Your task to perform on an android device: toggle translation in the chrome app Image 0: 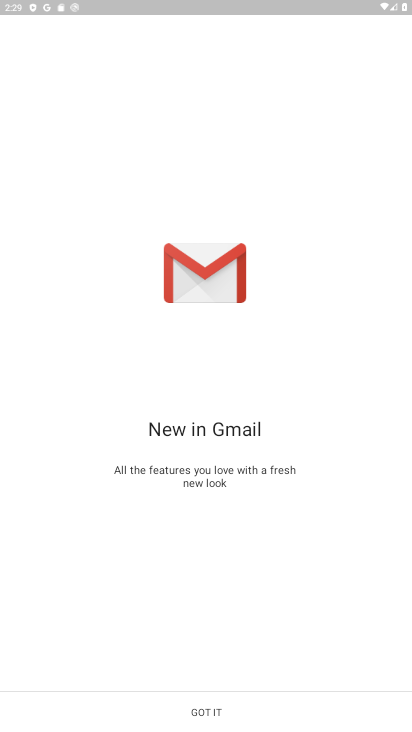
Step 0: press home button
Your task to perform on an android device: toggle translation in the chrome app Image 1: 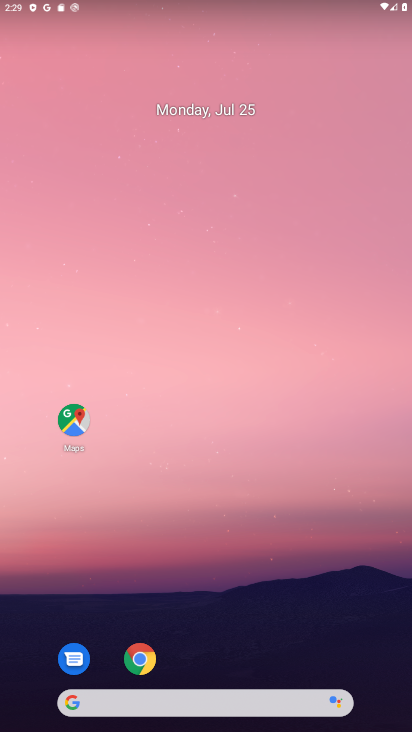
Step 1: drag from (208, 670) to (193, 3)
Your task to perform on an android device: toggle translation in the chrome app Image 2: 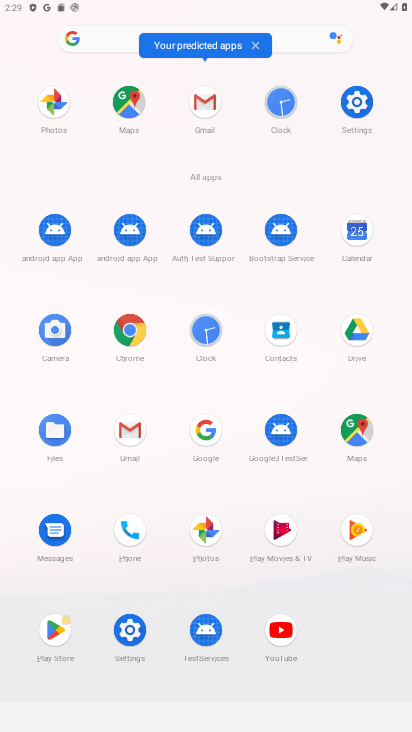
Step 2: click (143, 332)
Your task to perform on an android device: toggle translation in the chrome app Image 3: 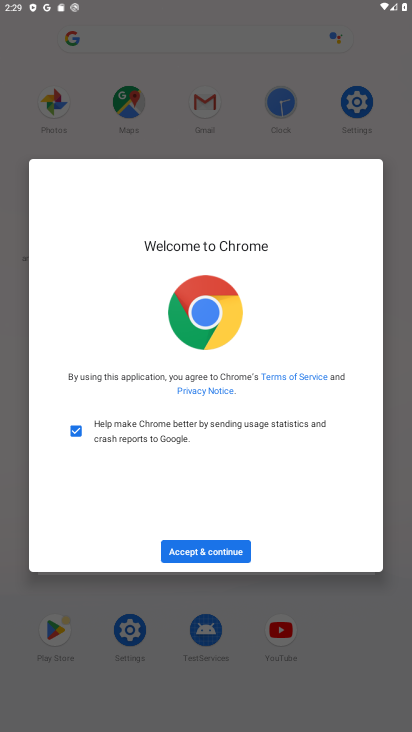
Step 3: click (209, 544)
Your task to perform on an android device: toggle translation in the chrome app Image 4: 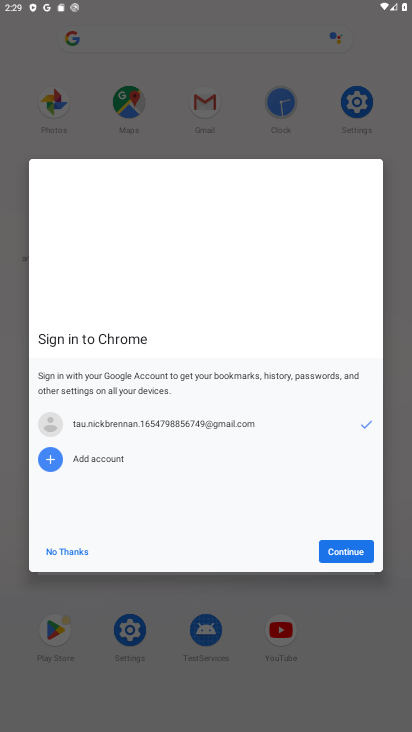
Step 4: click (348, 556)
Your task to perform on an android device: toggle translation in the chrome app Image 5: 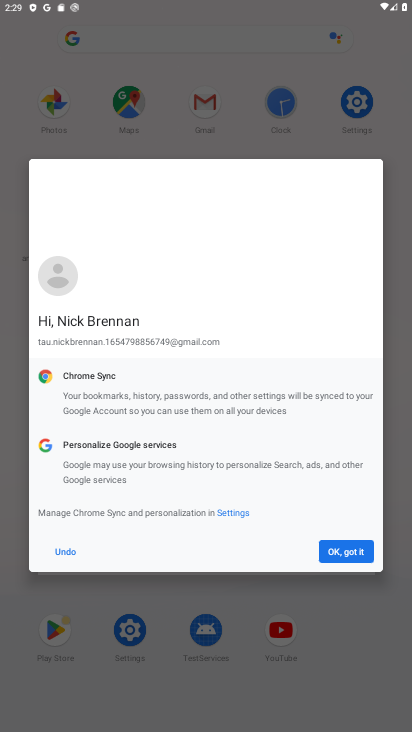
Step 5: click (351, 553)
Your task to perform on an android device: toggle translation in the chrome app Image 6: 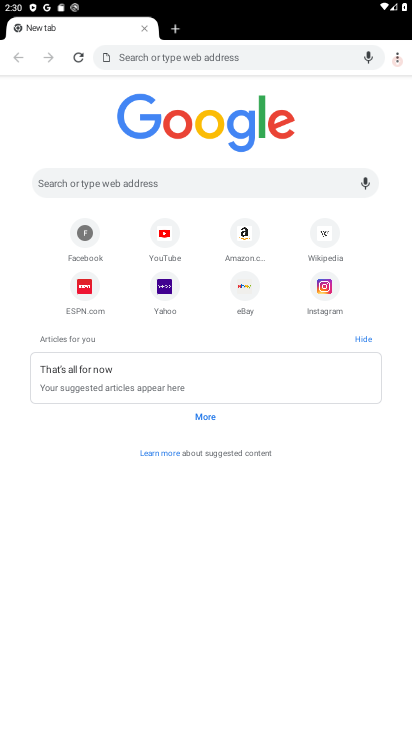
Step 6: drag from (399, 55) to (272, 296)
Your task to perform on an android device: toggle translation in the chrome app Image 7: 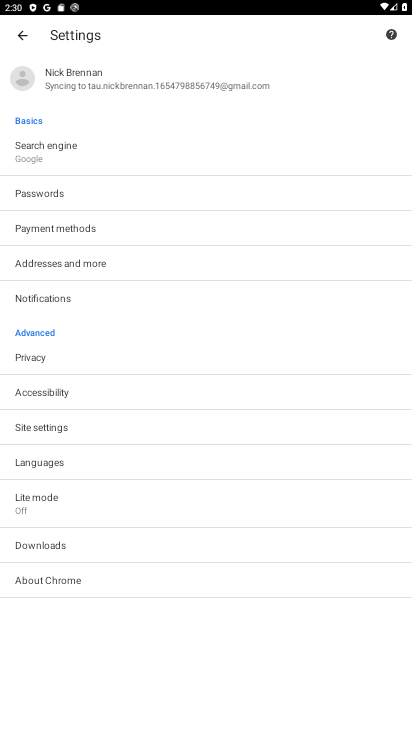
Step 7: click (75, 462)
Your task to perform on an android device: toggle translation in the chrome app Image 8: 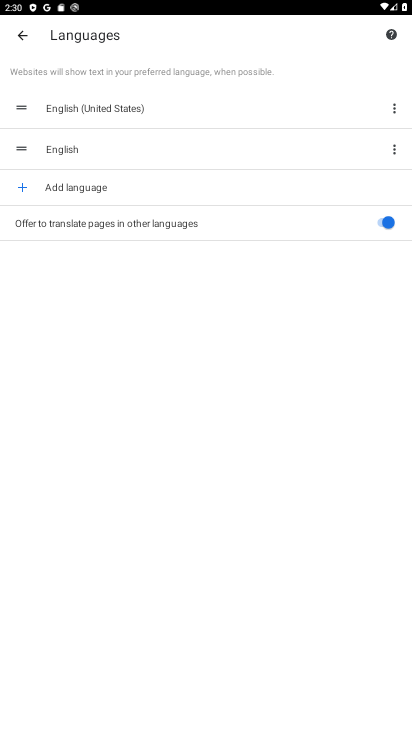
Step 8: click (375, 220)
Your task to perform on an android device: toggle translation in the chrome app Image 9: 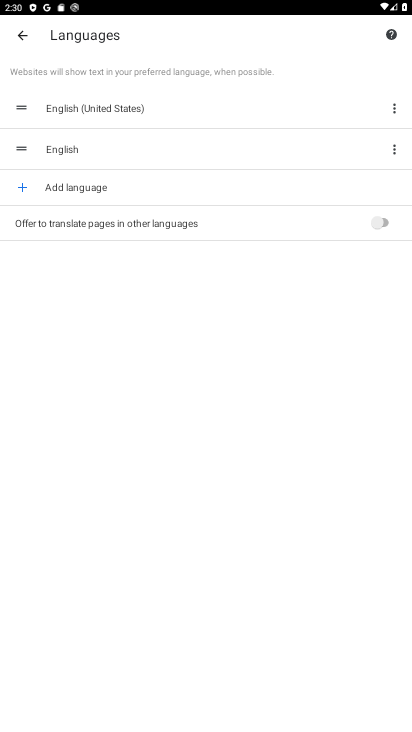
Step 9: task complete